Your task to perform on an android device: toggle priority inbox in the gmail app Image 0: 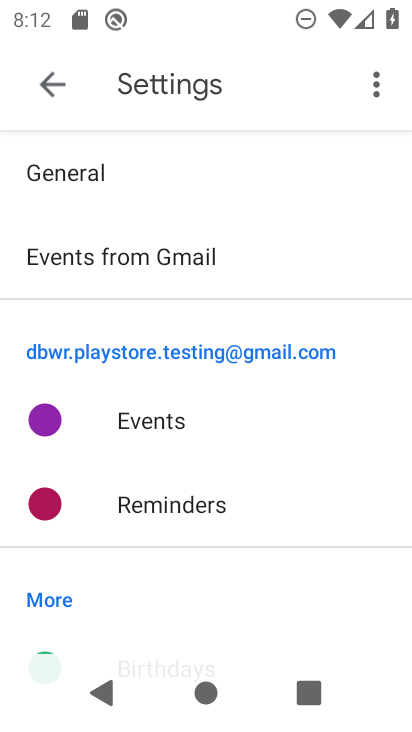
Step 0: press home button
Your task to perform on an android device: toggle priority inbox in the gmail app Image 1: 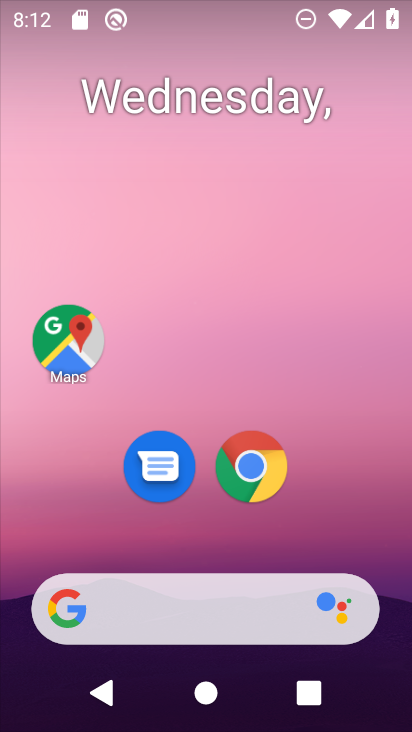
Step 1: drag from (307, 499) to (319, 9)
Your task to perform on an android device: toggle priority inbox in the gmail app Image 2: 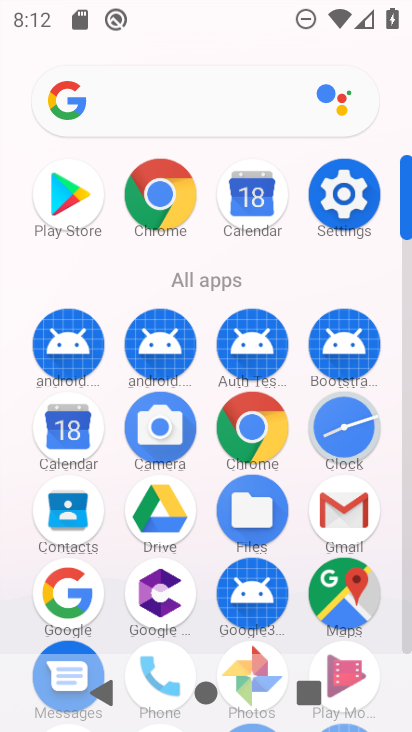
Step 2: click (337, 516)
Your task to perform on an android device: toggle priority inbox in the gmail app Image 3: 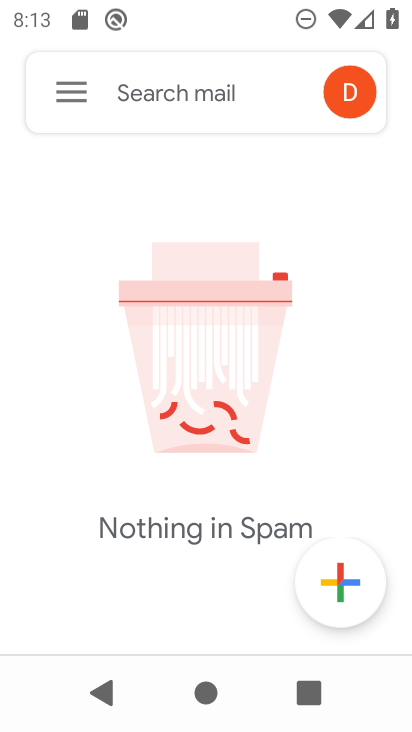
Step 3: click (57, 86)
Your task to perform on an android device: toggle priority inbox in the gmail app Image 4: 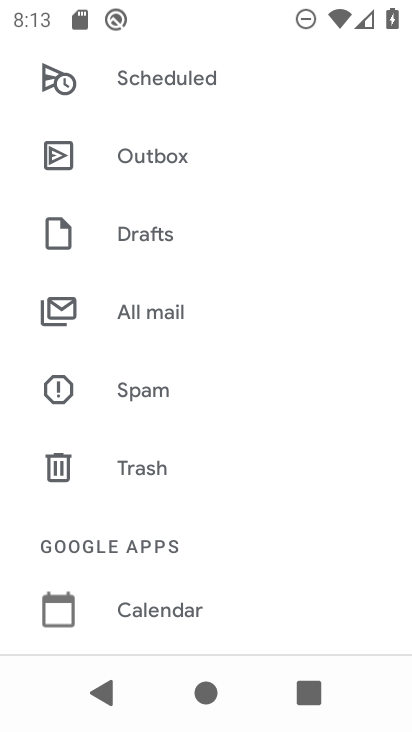
Step 4: drag from (144, 507) to (195, 229)
Your task to perform on an android device: toggle priority inbox in the gmail app Image 5: 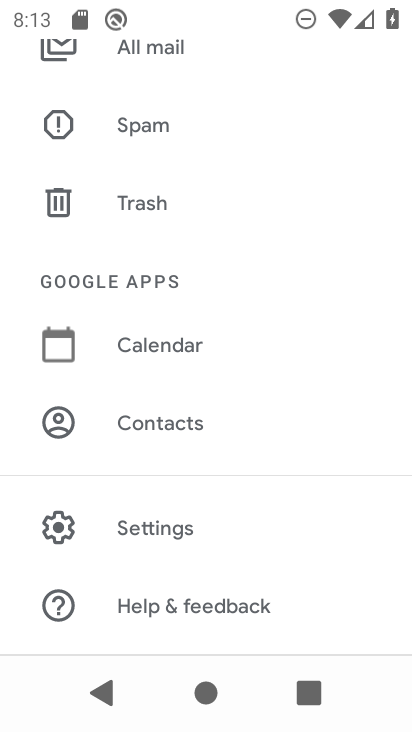
Step 5: click (147, 526)
Your task to perform on an android device: toggle priority inbox in the gmail app Image 6: 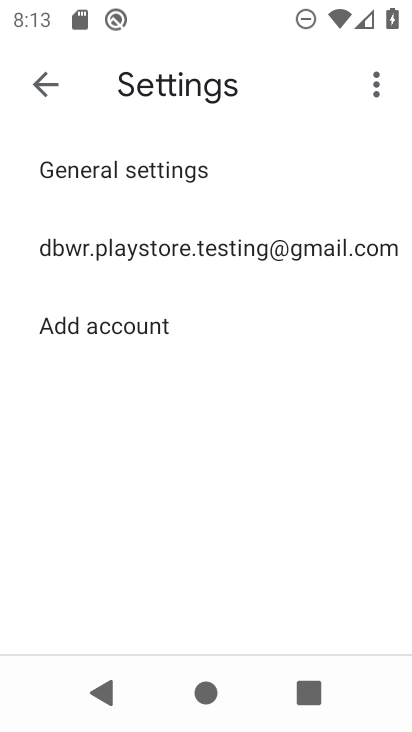
Step 6: click (163, 241)
Your task to perform on an android device: toggle priority inbox in the gmail app Image 7: 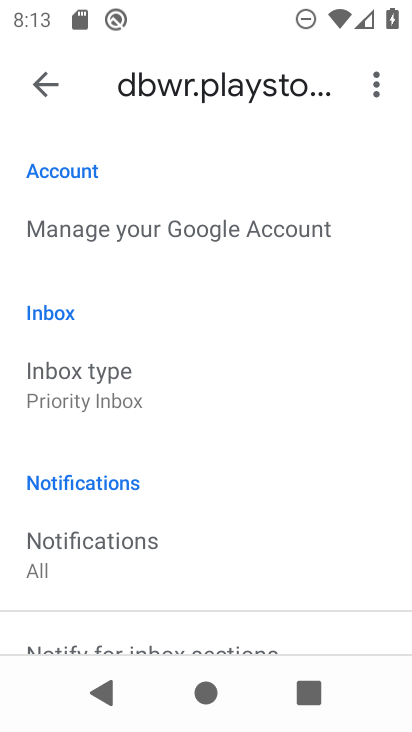
Step 7: click (102, 402)
Your task to perform on an android device: toggle priority inbox in the gmail app Image 8: 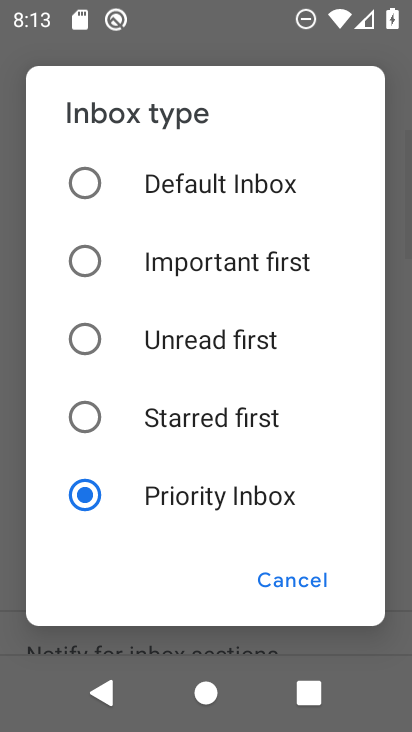
Step 8: click (91, 163)
Your task to perform on an android device: toggle priority inbox in the gmail app Image 9: 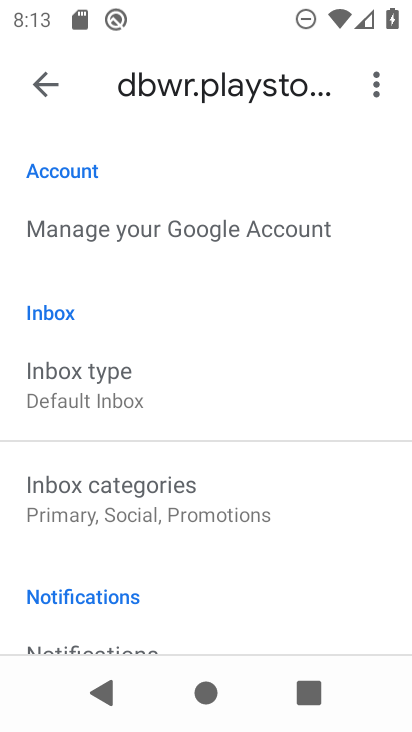
Step 9: task complete